Your task to perform on an android device: turn off translation in the chrome app Image 0: 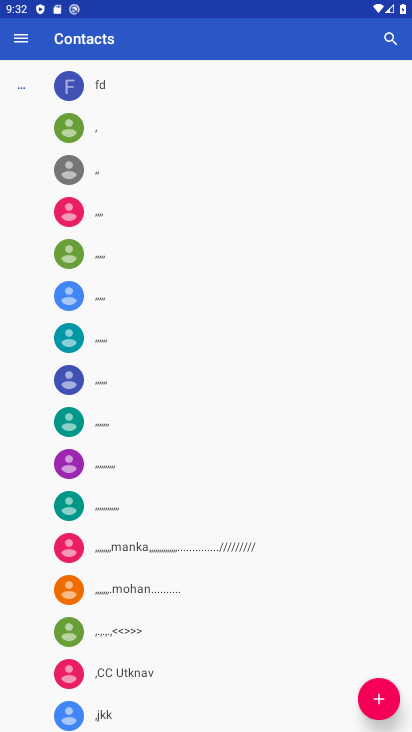
Step 0: press home button
Your task to perform on an android device: turn off translation in the chrome app Image 1: 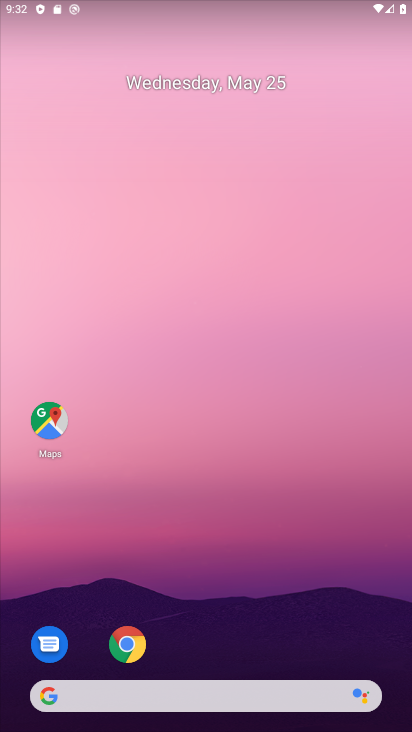
Step 1: click (124, 652)
Your task to perform on an android device: turn off translation in the chrome app Image 2: 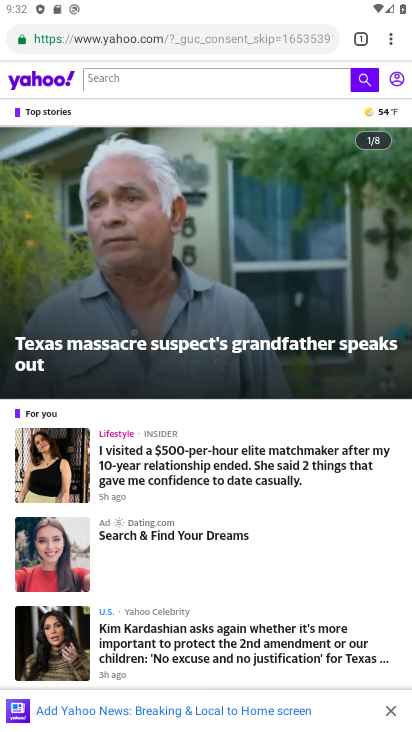
Step 2: click (393, 44)
Your task to perform on an android device: turn off translation in the chrome app Image 3: 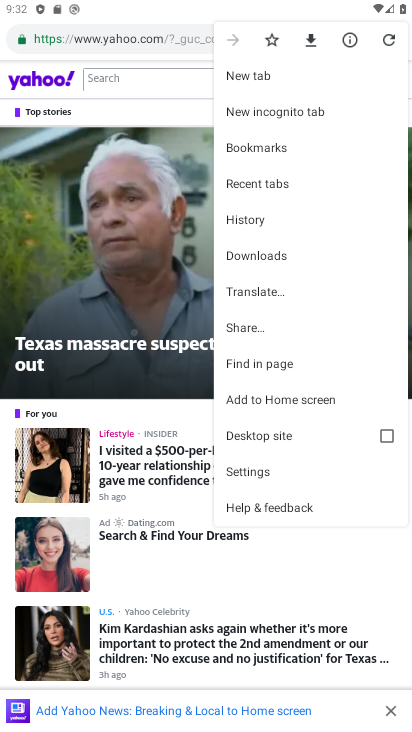
Step 3: click (241, 474)
Your task to perform on an android device: turn off translation in the chrome app Image 4: 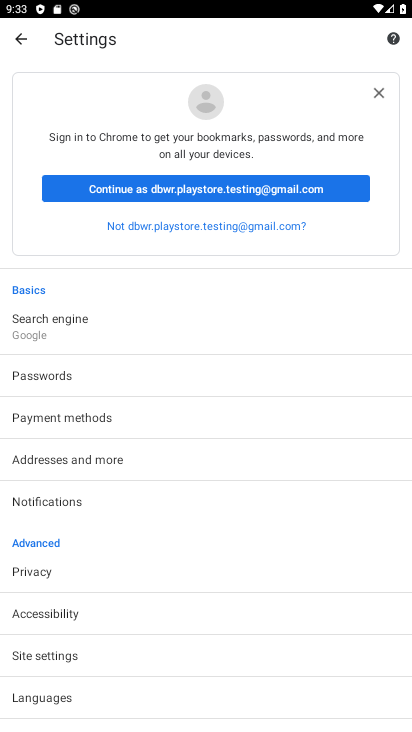
Step 4: click (82, 693)
Your task to perform on an android device: turn off translation in the chrome app Image 5: 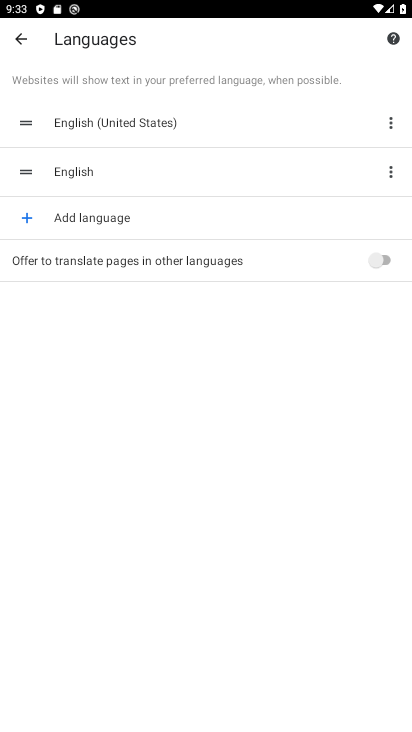
Step 5: task complete